Your task to perform on an android device: Search for "apple airpods" on amazon.com, select the first entry, add it to the cart, then select checkout. Image 0: 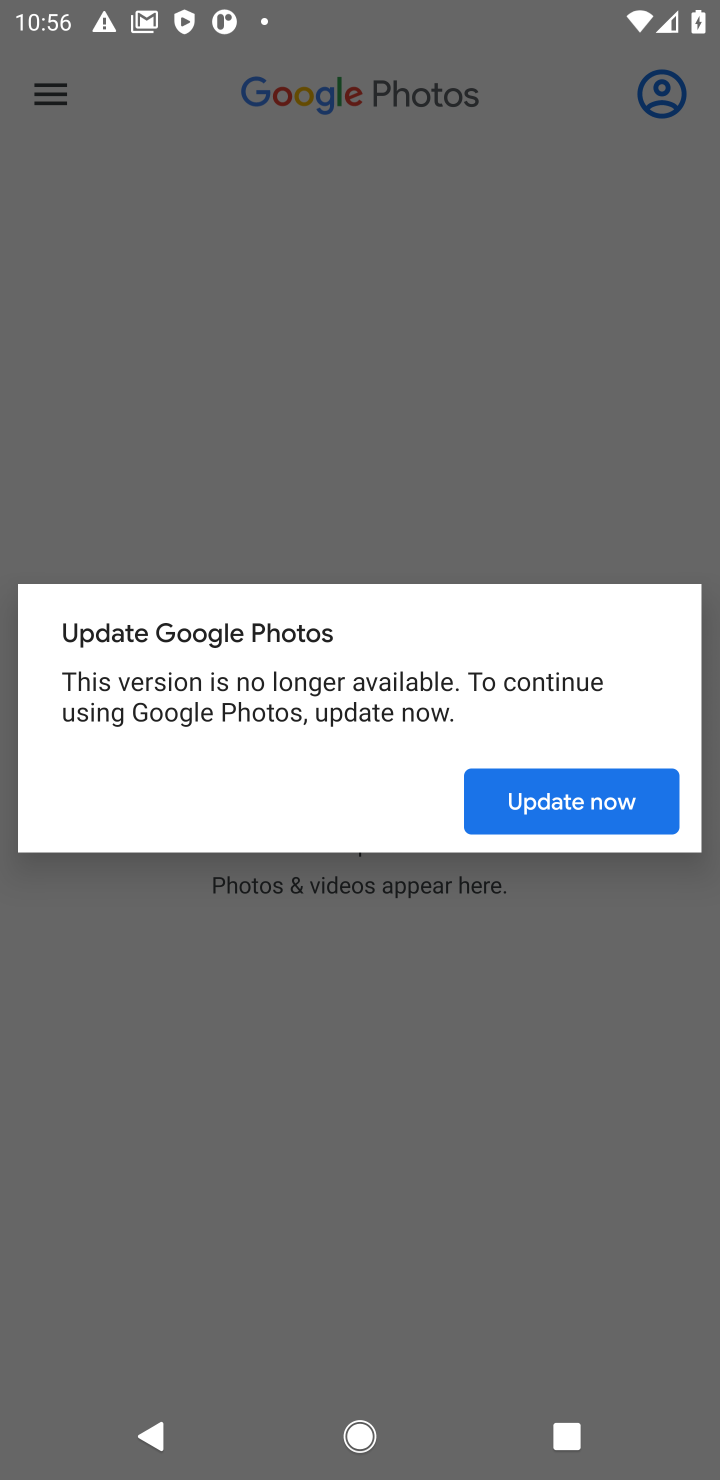
Step 0: press home button
Your task to perform on an android device: Search for "apple airpods" on amazon.com, select the first entry, add it to the cart, then select checkout. Image 1: 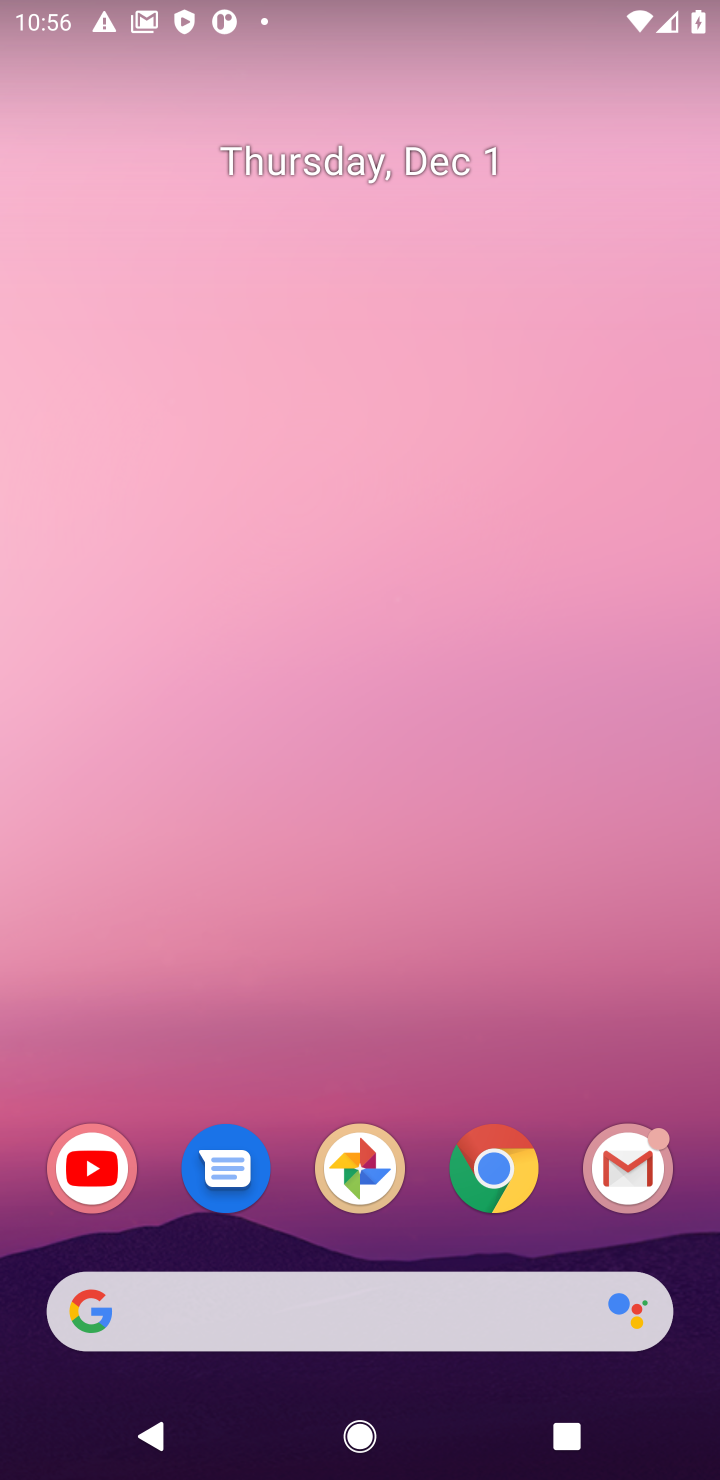
Step 1: click (506, 1184)
Your task to perform on an android device: Search for "apple airpods" on amazon.com, select the first entry, add it to the cart, then select checkout. Image 2: 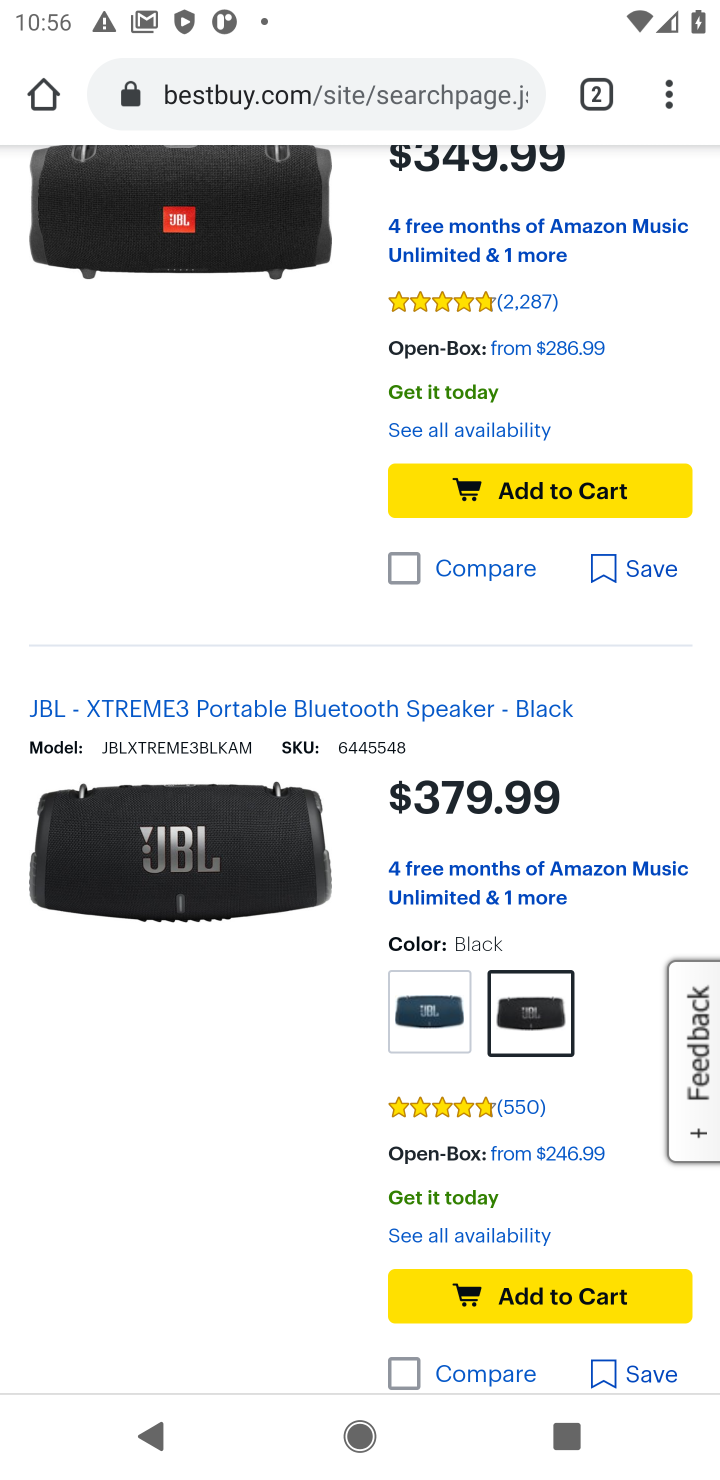
Step 2: click (236, 88)
Your task to perform on an android device: Search for "apple airpods" on amazon.com, select the first entry, add it to the cart, then select checkout. Image 3: 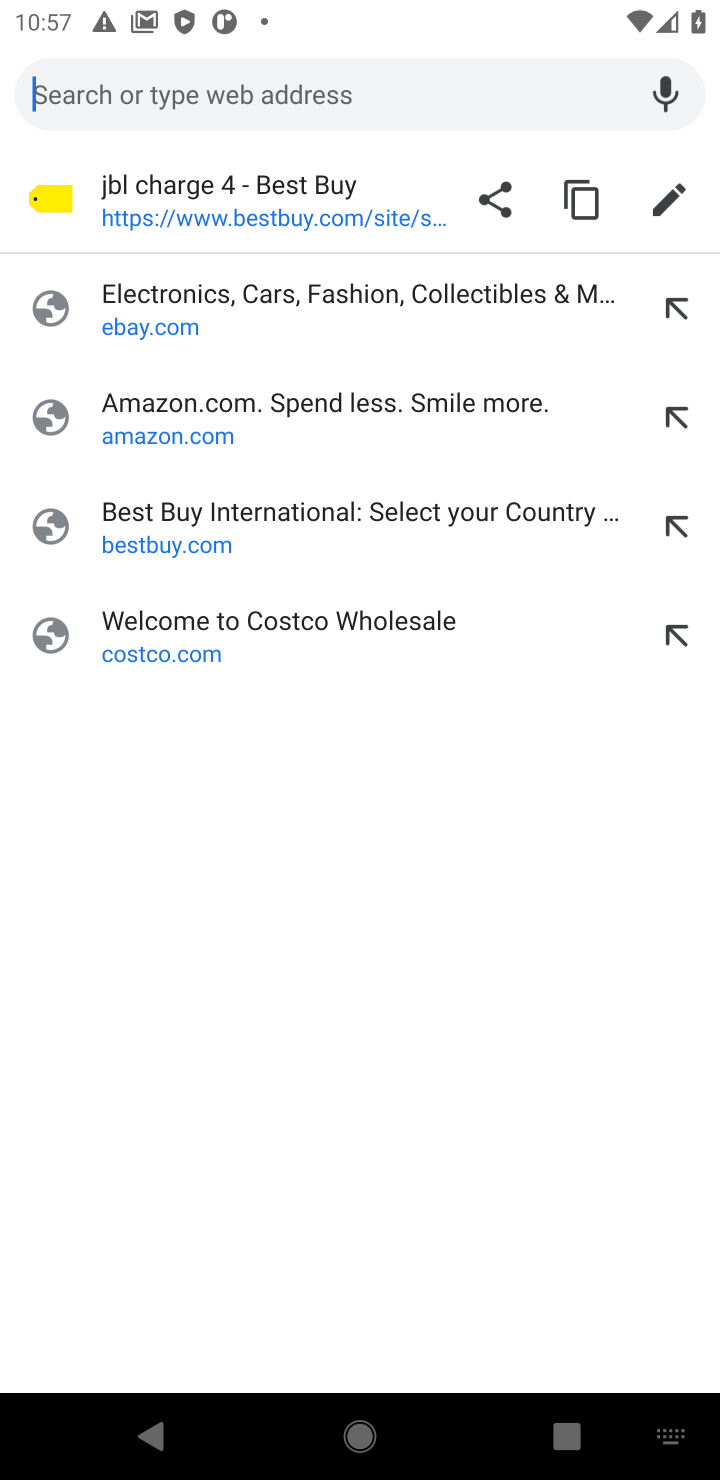
Step 3: click (134, 439)
Your task to perform on an android device: Search for "apple airpods" on amazon.com, select the first entry, add it to the cart, then select checkout. Image 4: 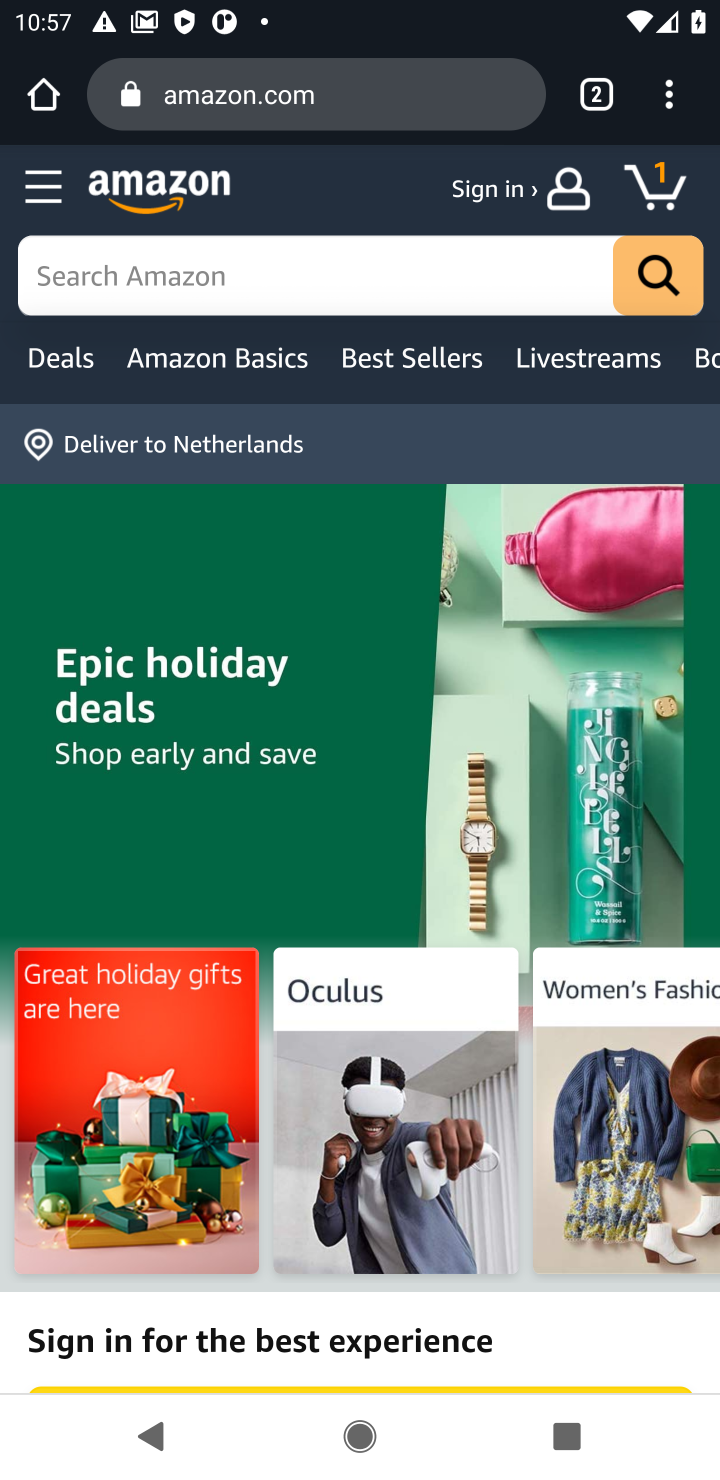
Step 4: click (182, 284)
Your task to perform on an android device: Search for "apple airpods" on amazon.com, select the first entry, add it to the cart, then select checkout. Image 5: 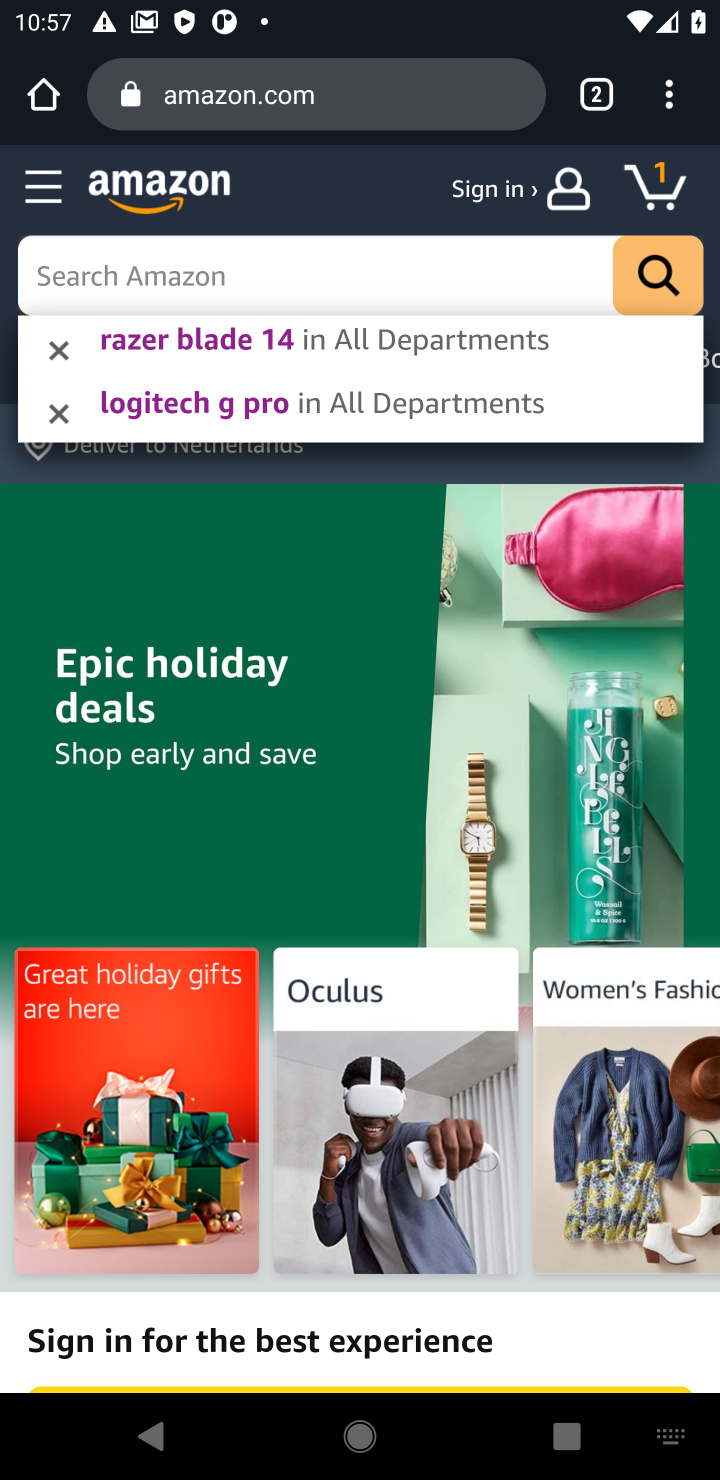
Step 5: type "apple airpods"
Your task to perform on an android device: Search for "apple airpods" on amazon.com, select the first entry, add it to the cart, then select checkout. Image 6: 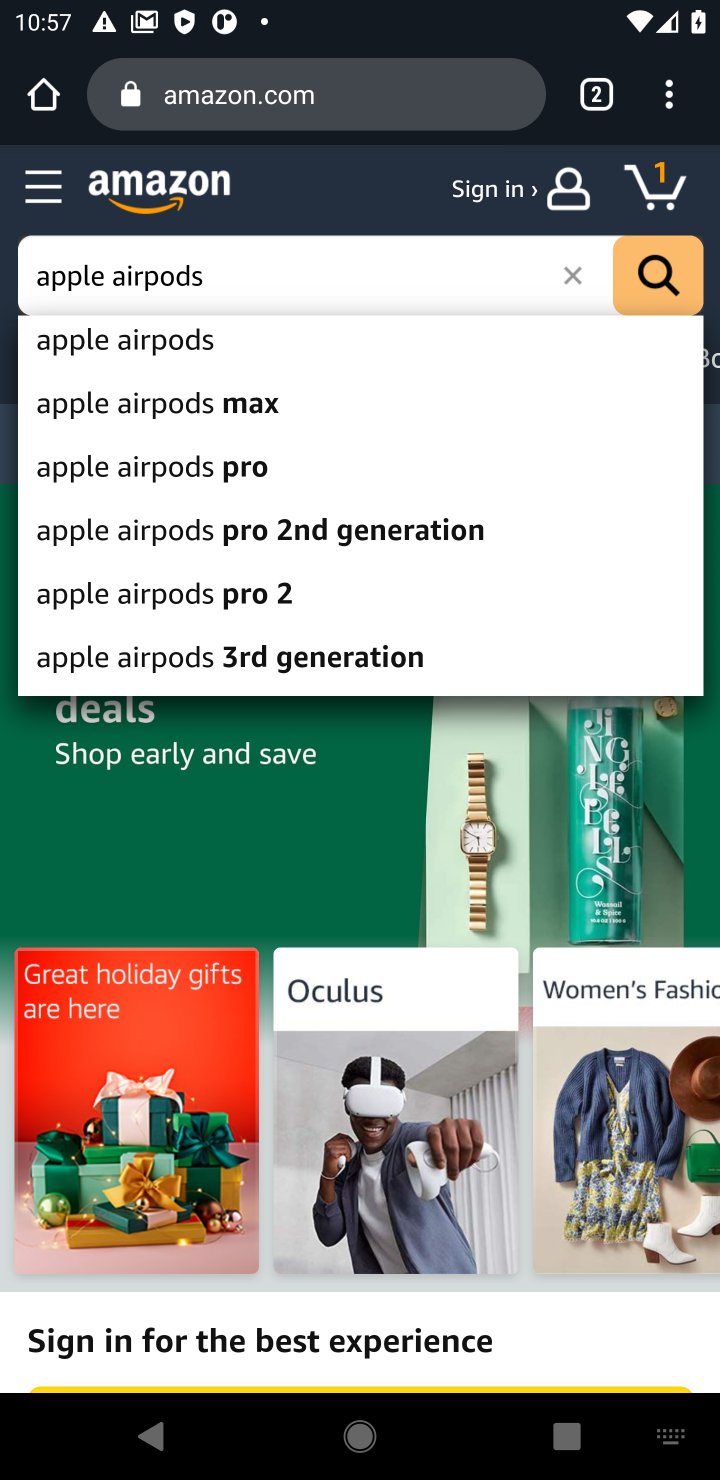
Step 6: click (77, 347)
Your task to perform on an android device: Search for "apple airpods" on amazon.com, select the first entry, add it to the cart, then select checkout. Image 7: 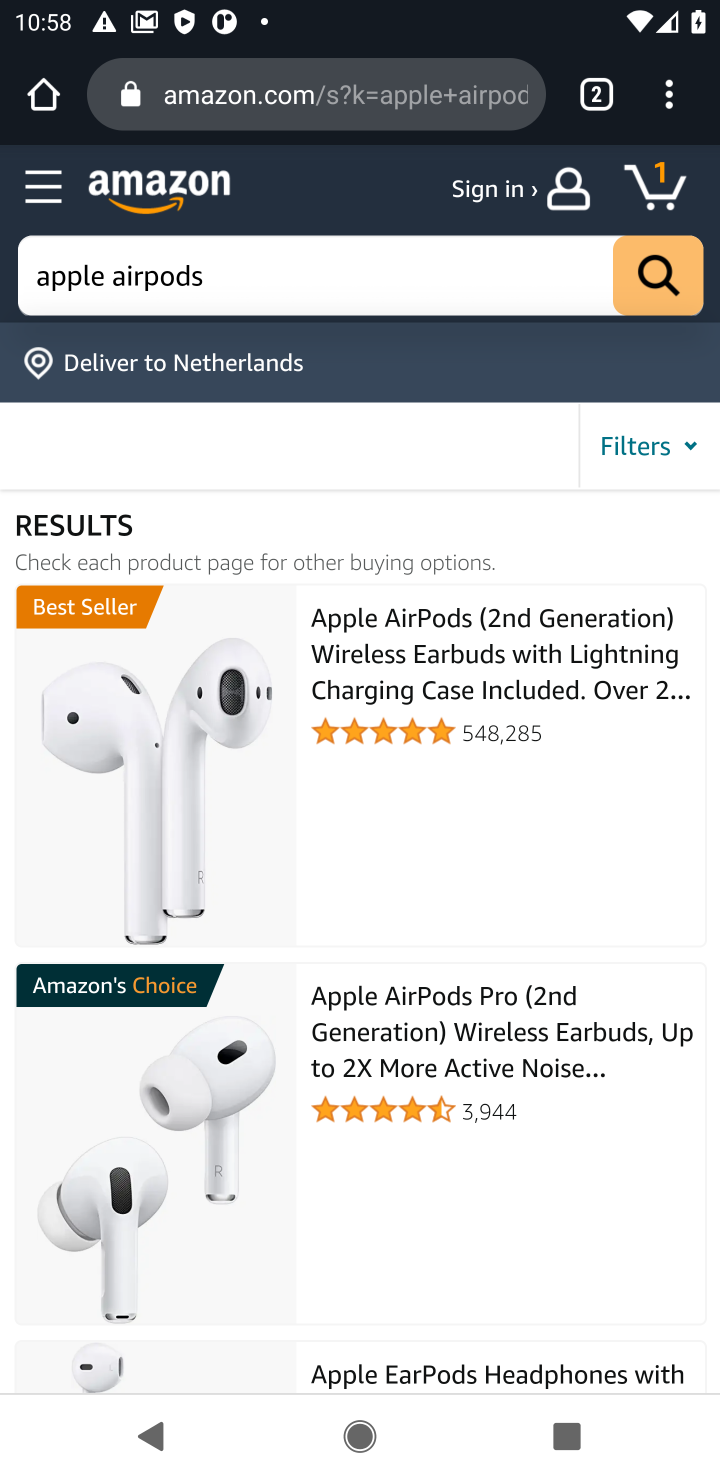
Step 7: click (427, 685)
Your task to perform on an android device: Search for "apple airpods" on amazon.com, select the first entry, add it to the cart, then select checkout. Image 8: 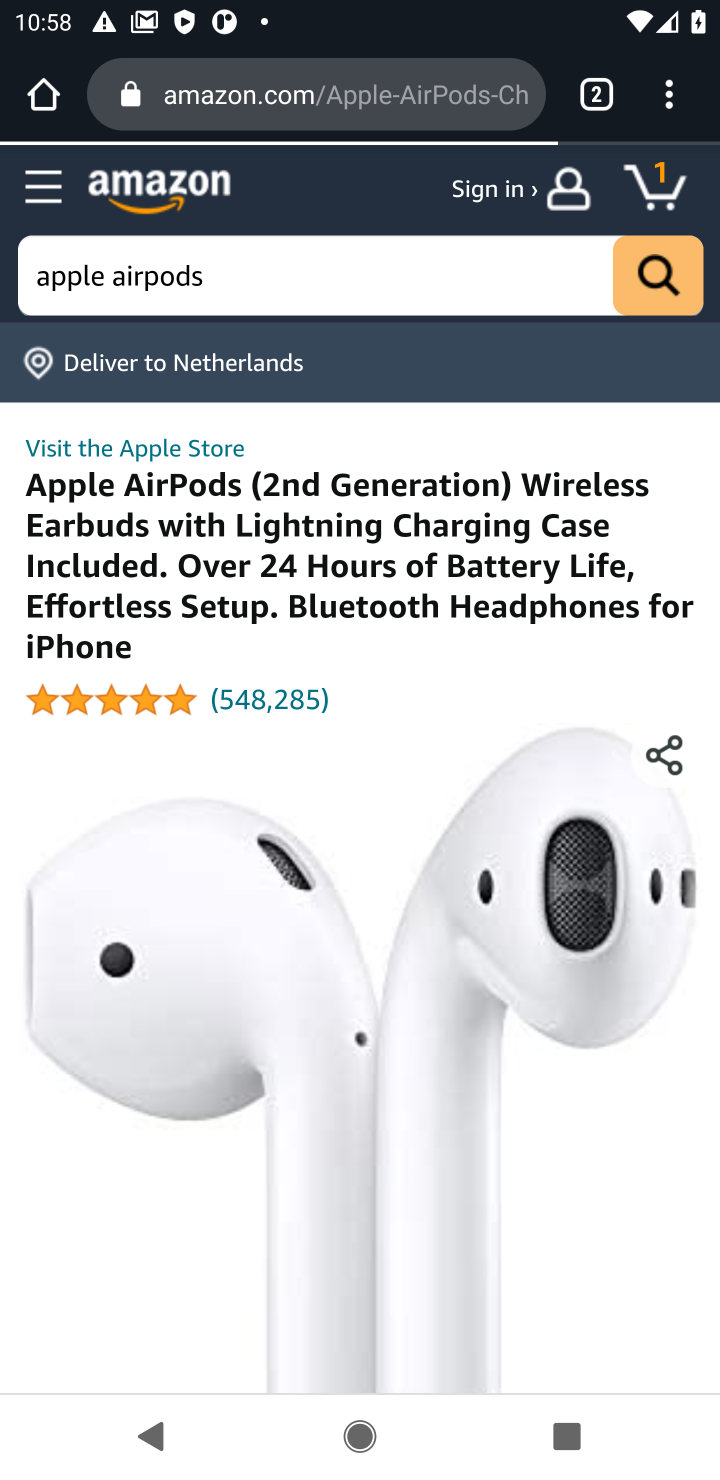
Step 8: task complete